Your task to perform on an android device: Go to ESPN.com Image 0: 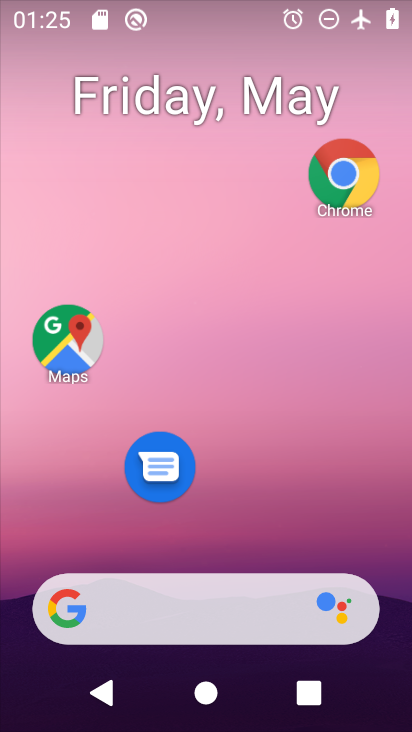
Step 0: click (345, 174)
Your task to perform on an android device: Go to ESPN.com Image 1: 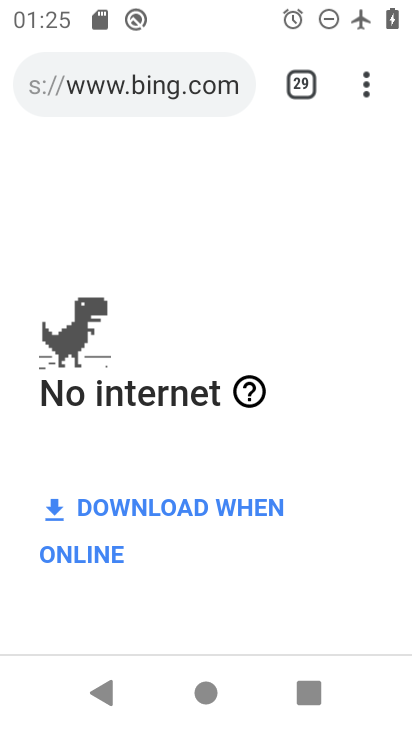
Step 1: click (355, 79)
Your task to perform on an android device: Go to ESPN.com Image 2: 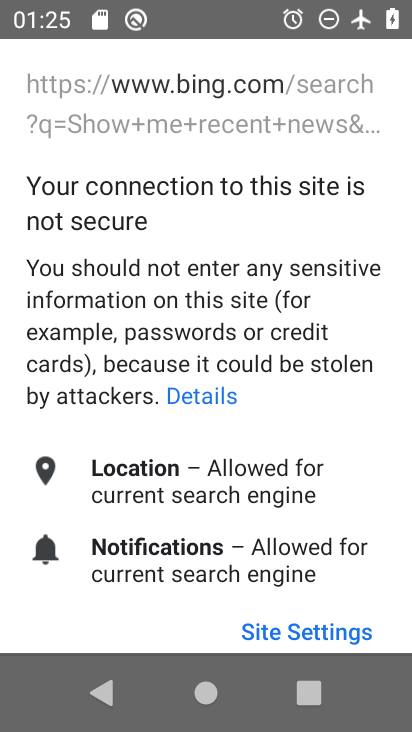
Step 2: press back button
Your task to perform on an android device: Go to ESPN.com Image 3: 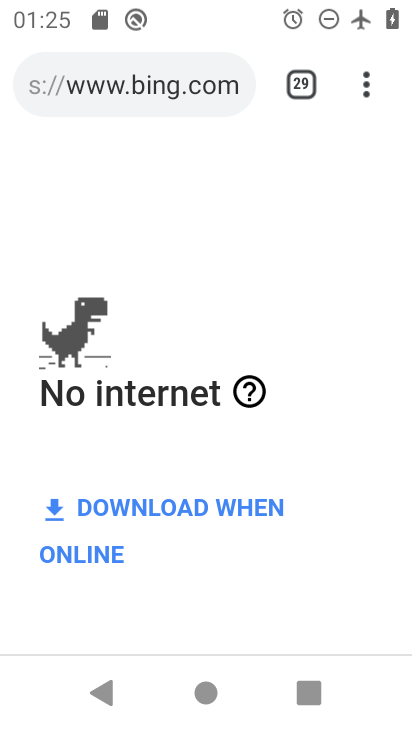
Step 3: click (369, 83)
Your task to perform on an android device: Go to ESPN.com Image 4: 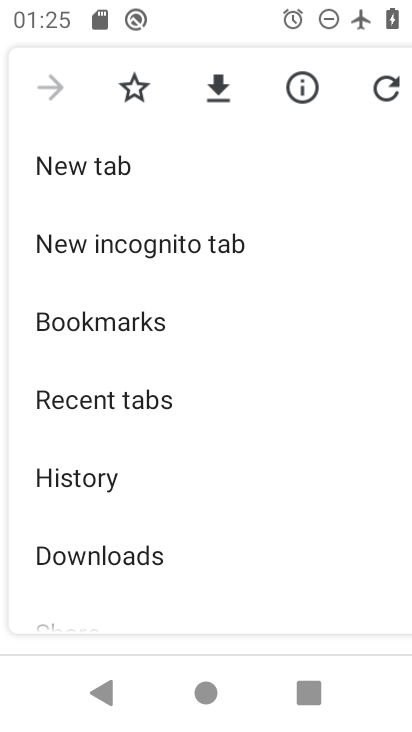
Step 4: click (95, 143)
Your task to perform on an android device: Go to ESPN.com Image 5: 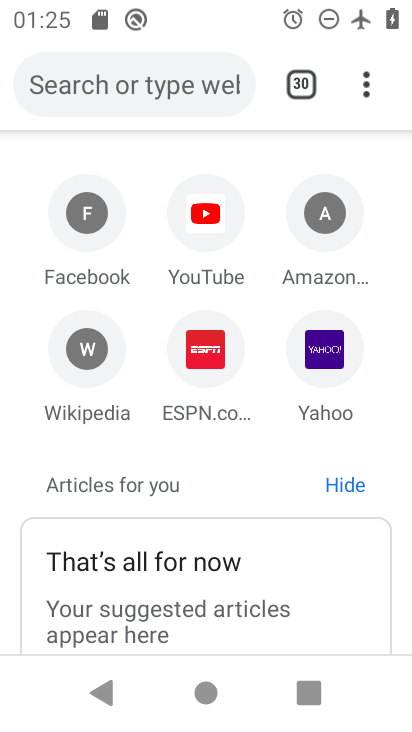
Step 5: click (202, 362)
Your task to perform on an android device: Go to ESPN.com Image 6: 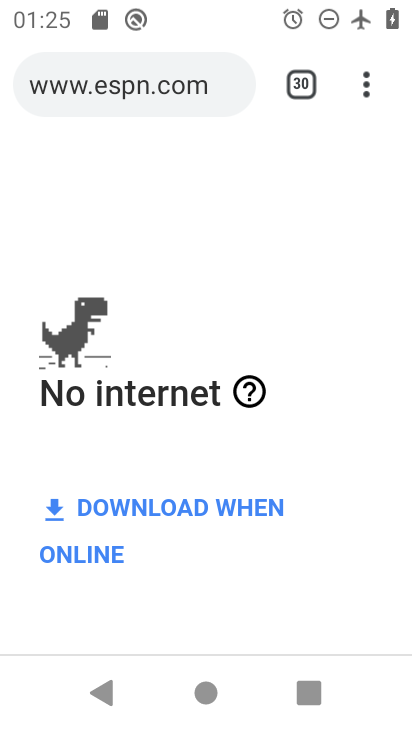
Step 6: task complete